Your task to perform on an android device: open a new tab in the chrome app Image 0: 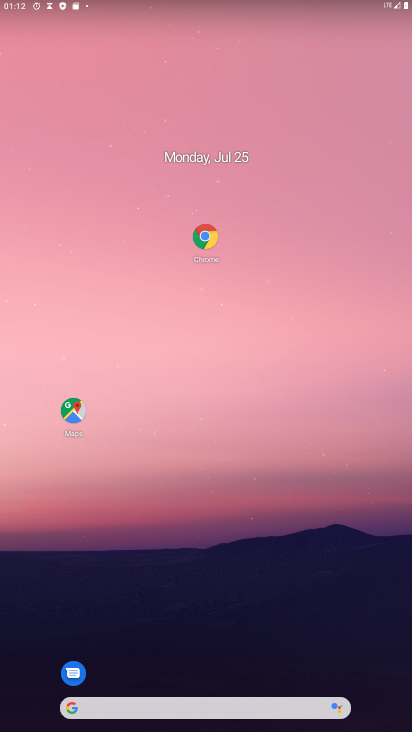
Step 0: drag from (329, 701) to (266, 43)
Your task to perform on an android device: open a new tab in the chrome app Image 1: 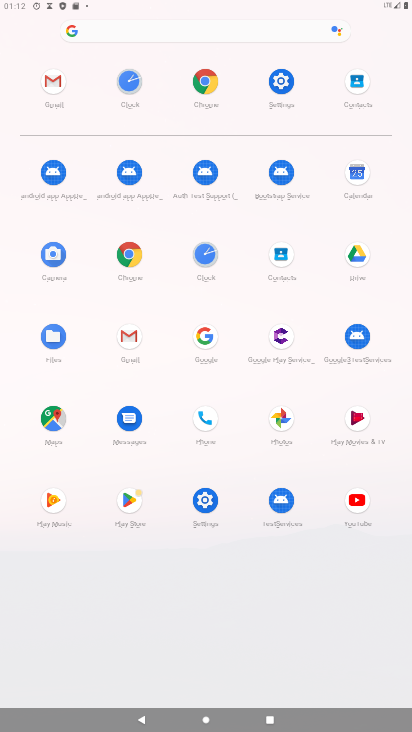
Step 1: click (131, 242)
Your task to perform on an android device: open a new tab in the chrome app Image 2: 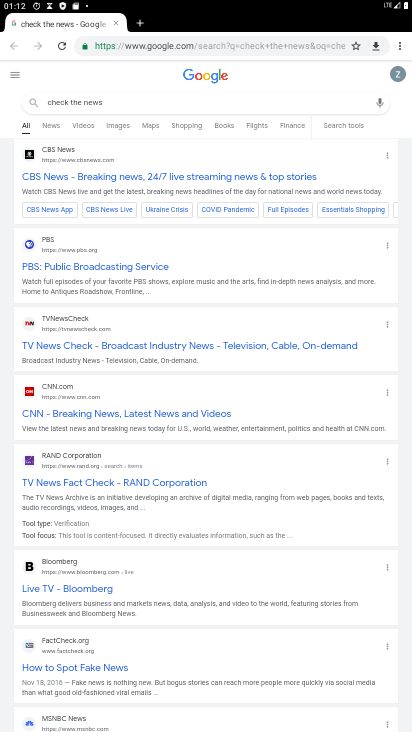
Step 2: task complete